Your task to perform on an android device: Open Chrome and go to settings Image 0: 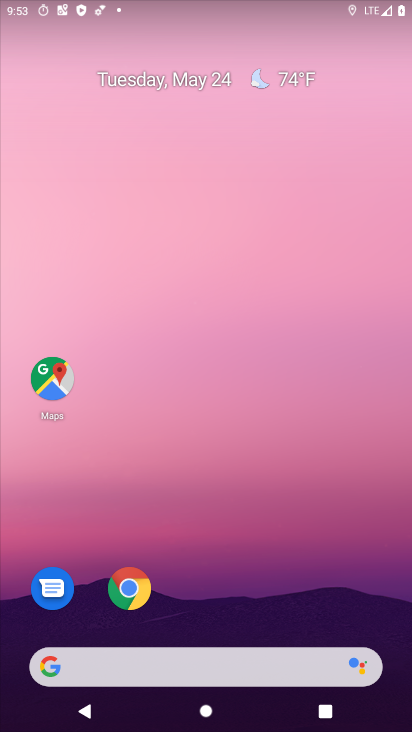
Step 0: drag from (231, 567) to (188, 14)
Your task to perform on an android device: Open Chrome and go to settings Image 1: 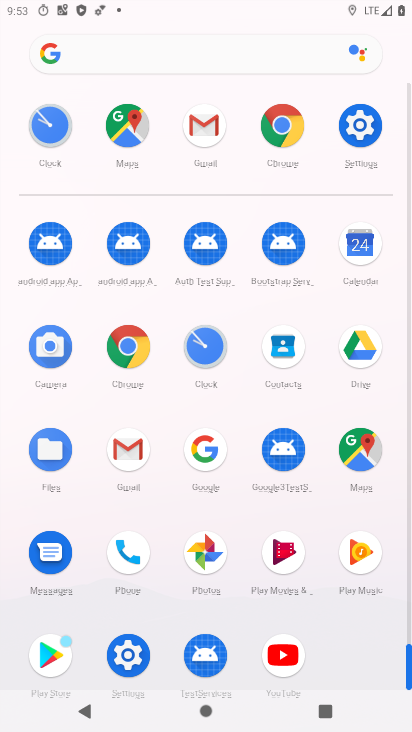
Step 1: drag from (0, 517) to (0, 202)
Your task to perform on an android device: Open Chrome and go to settings Image 2: 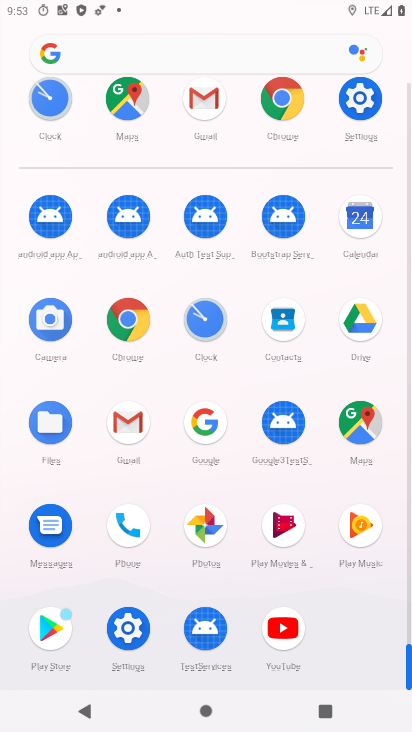
Step 2: click (124, 319)
Your task to perform on an android device: Open Chrome and go to settings Image 3: 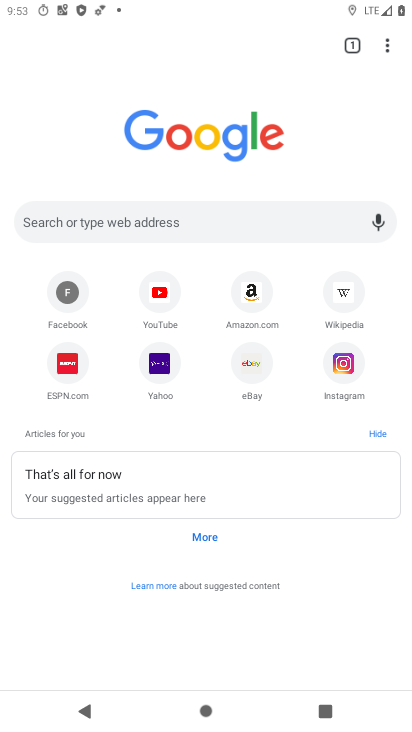
Step 3: task complete